Your task to perform on an android device: Open battery settings Image 0: 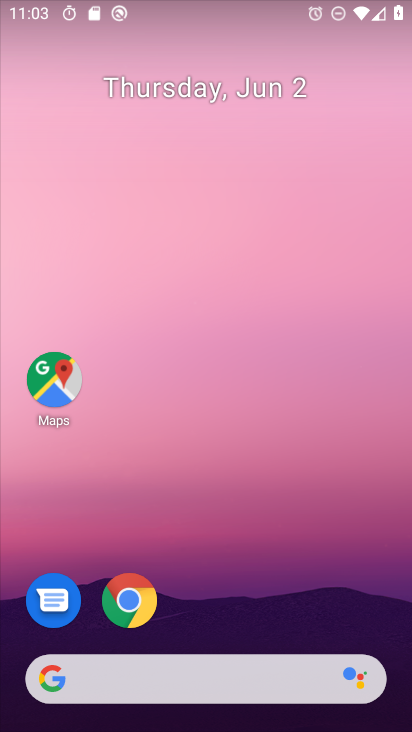
Step 0: drag from (237, 572) to (233, 56)
Your task to perform on an android device: Open battery settings Image 1: 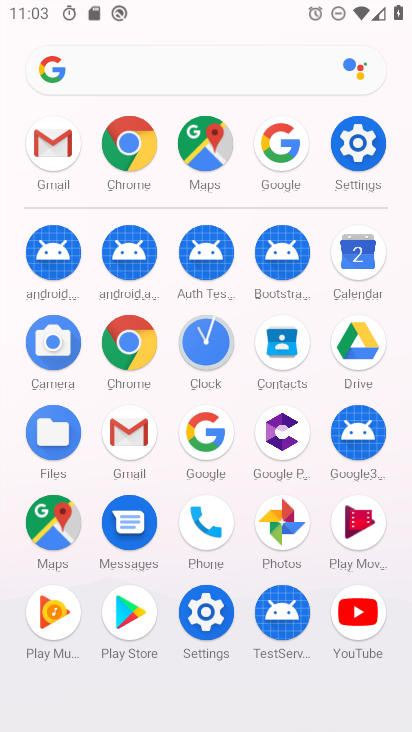
Step 1: click (353, 140)
Your task to perform on an android device: Open battery settings Image 2: 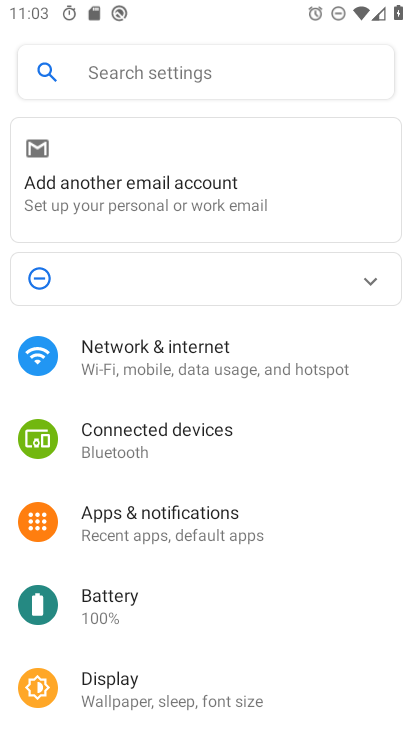
Step 2: click (153, 606)
Your task to perform on an android device: Open battery settings Image 3: 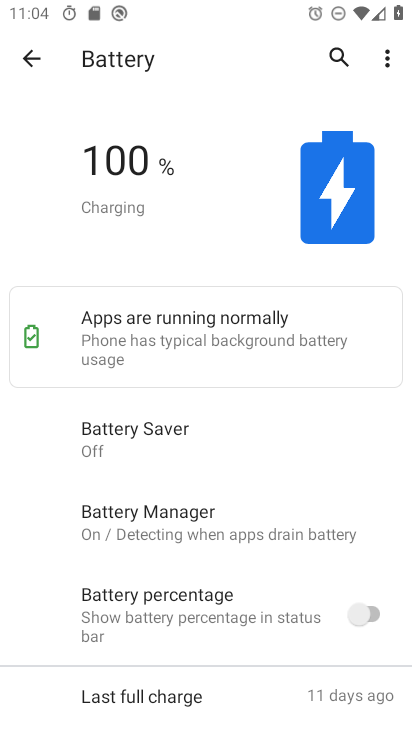
Step 3: task complete